Your task to perform on an android device: Go to Google maps Image 0: 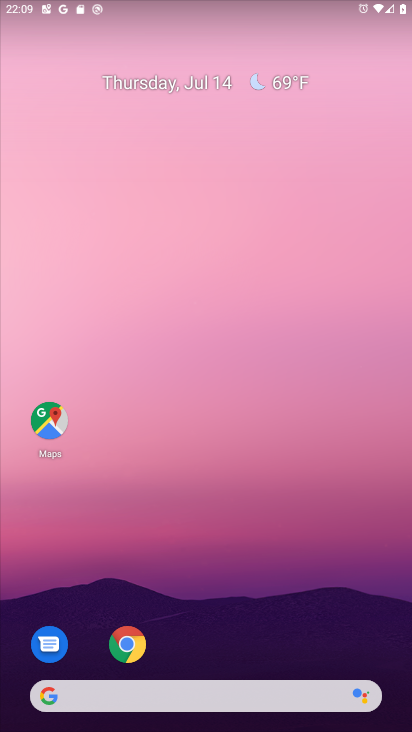
Step 0: click (63, 406)
Your task to perform on an android device: Go to Google maps Image 1: 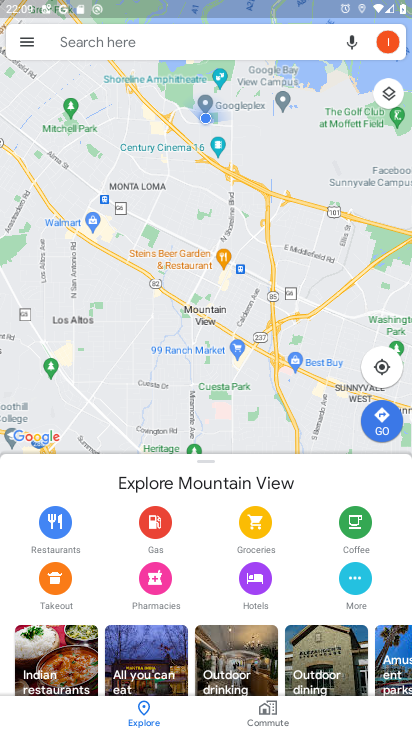
Step 1: task complete